Your task to perform on an android device: Open calendar and show me the first week of next month Image 0: 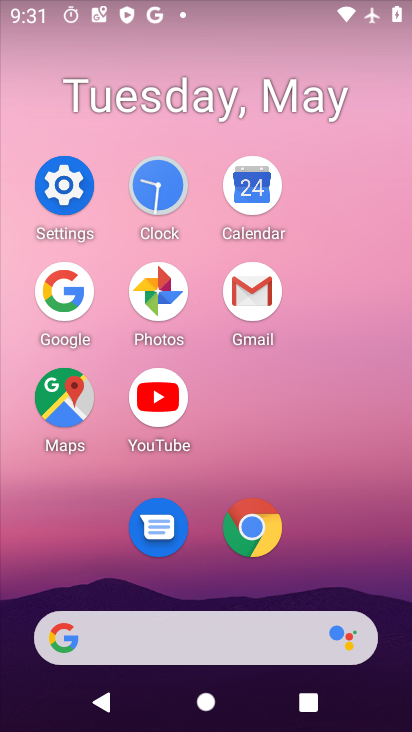
Step 0: click (239, 189)
Your task to perform on an android device: Open calendar and show me the first week of next month Image 1: 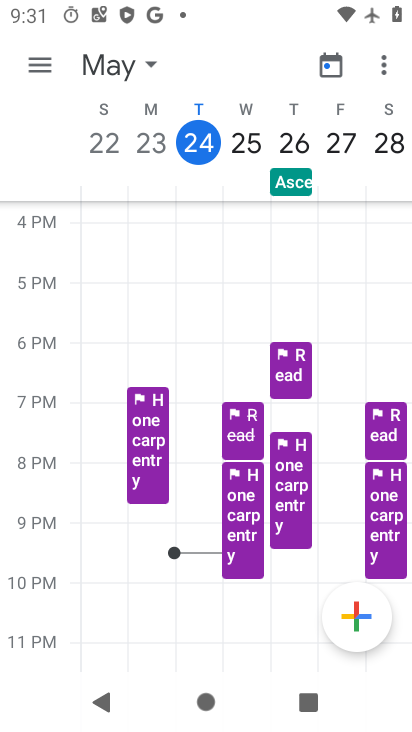
Step 1: click (88, 66)
Your task to perform on an android device: Open calendar and show me the first week of next month Image 2: 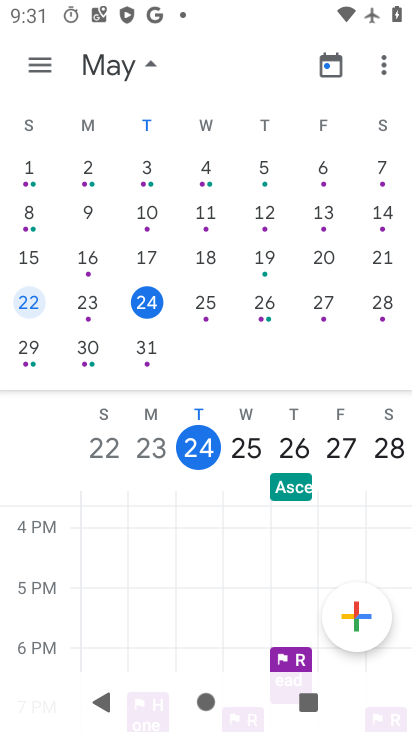
Step 2: drag from (393, 230) to (0, 70)
Your task to perform on an android device: Open calendar and show me the first week of next month Image 3: 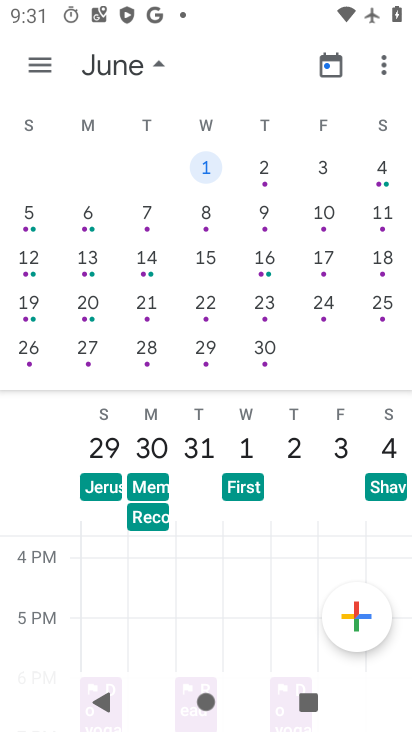
Step 3: click (42, 72)
Your task to perform on an android device: Open calendar and show me the first week of next month Image 4: 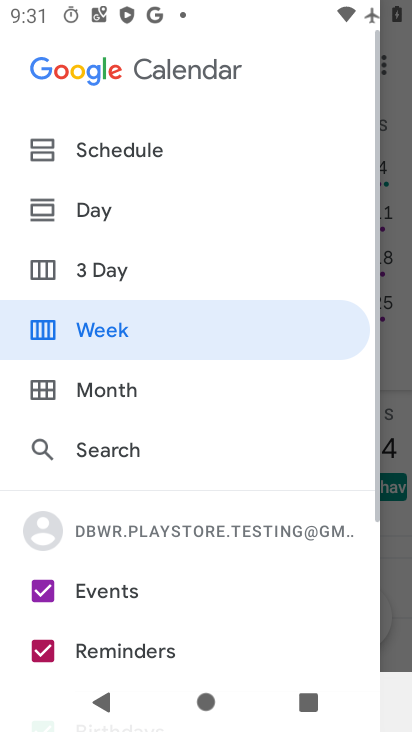
Step 4: click (155, 319)
Your task to perform on an android device: Open calendar and show me the first week of next month Image 5: 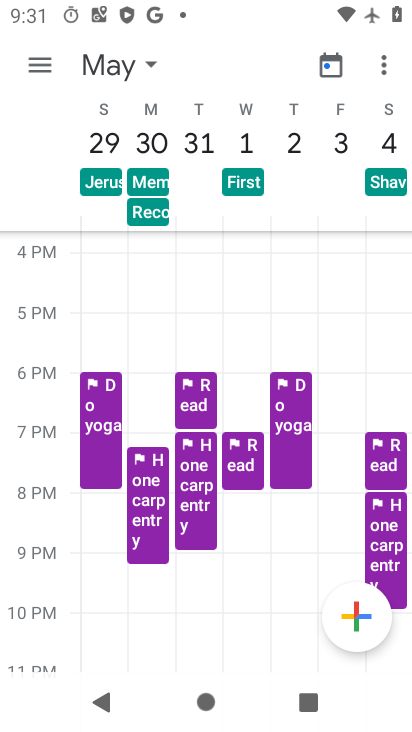
Step 5: task complete